Your task to perform on an android device: Open calendar and show me the first week of next month Image 0: 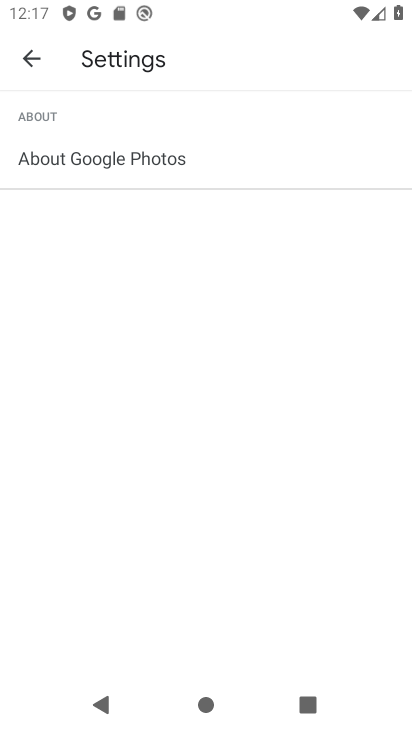
Step 0: click (27, 61)
Your task to perform on an android device: Open calendar and show me the first week of next month Image 1: 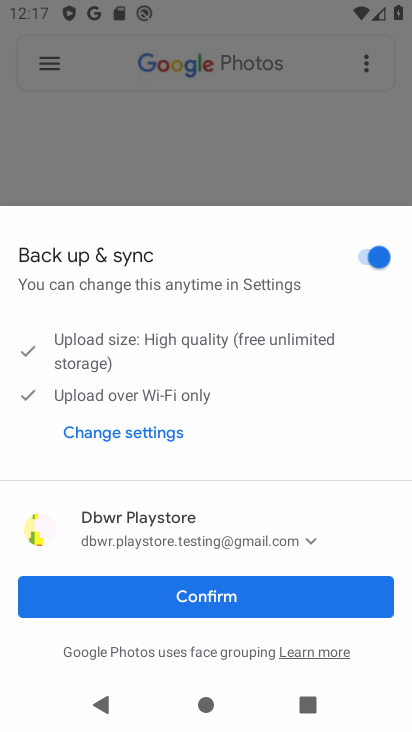
Step 1: press back button
Your task to perform on an android device: Open calendar and show me the first week of next month Image 2: 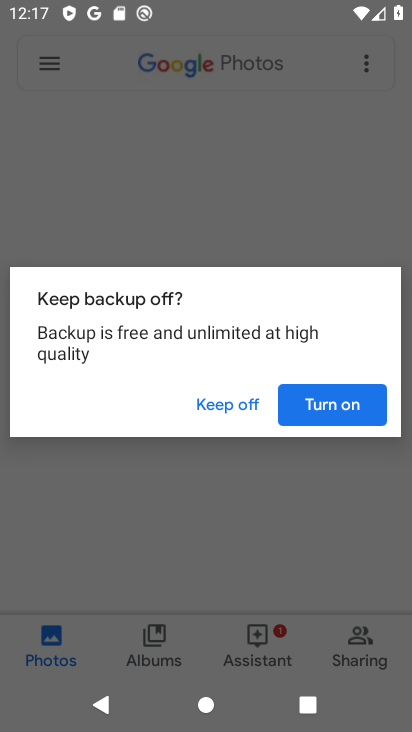
Step 2: click (281, 196)
Your task to perform on an android device: Open calendar and show me the first week of next month Image 3: 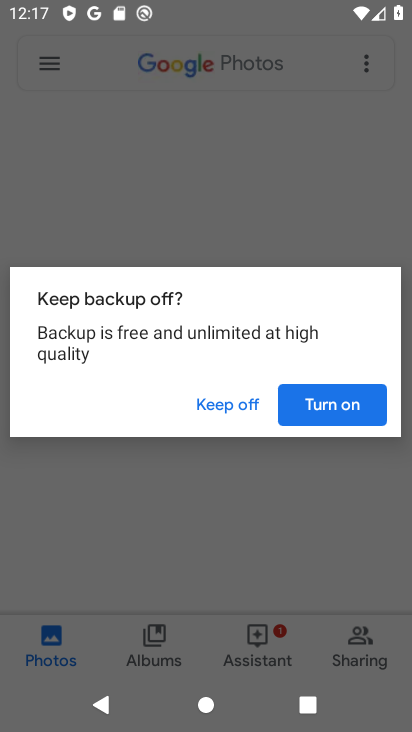
Step 3: click (276, 199)
Your task to perform on an android device: Open calendar and show me the first week of next month Image 4: 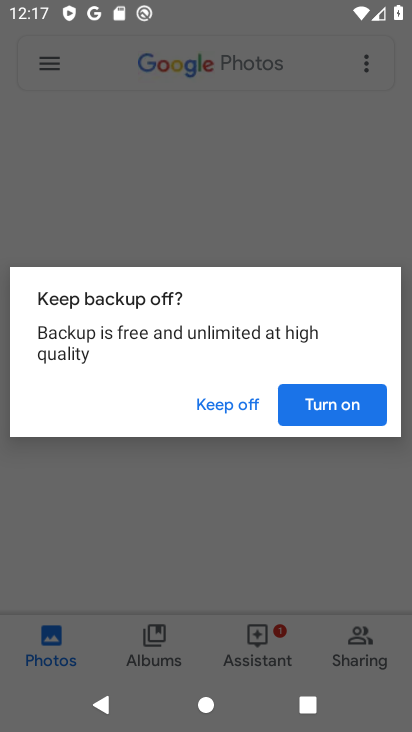
Step 4: click (275, 209)
Your task to perform on an android device: Open calendar and show me the first week of next month Image 5: 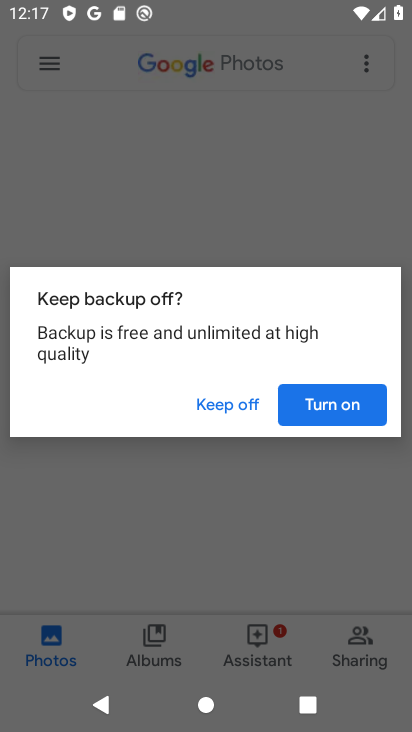
Step 5: click (282, 206)
Your task to perform on an android device: Open calendar and show me the first week of next month Image 6: 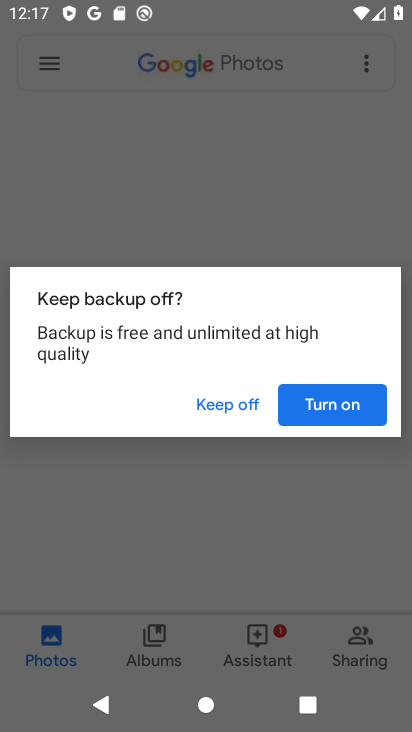
Step 6: drag from (286, 210) to (295, 243)
Your task to perform on an android device: Open calendar and show me the first week of next month Image 7: 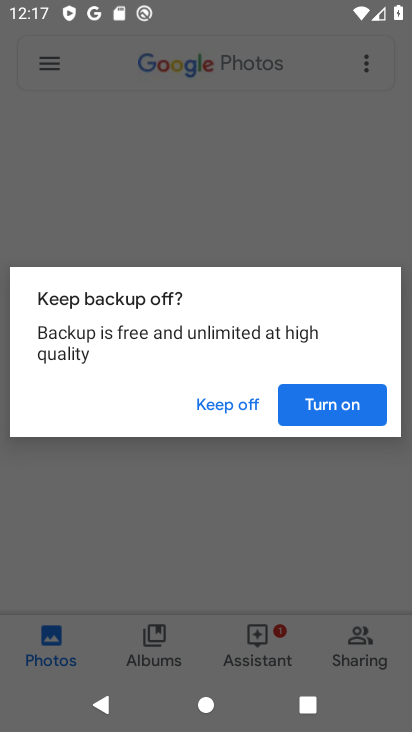
Step 7: click (301, 167)
Your task to perform on an android device: Open calendar and show me the first week of next month Image 8: 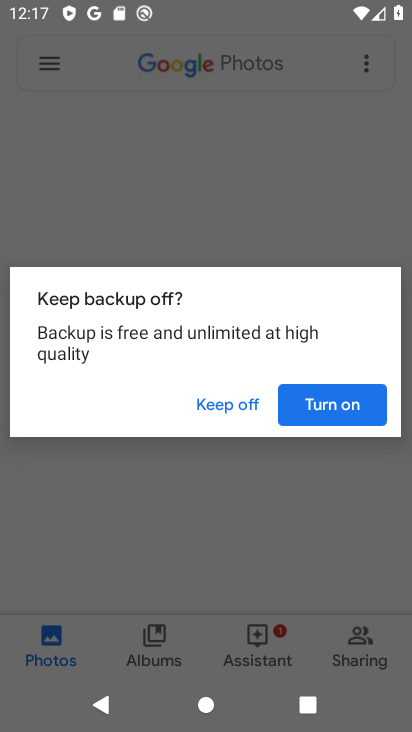
Step 8: click (299, 161)
Your task to perform on an android device: Open calendar and show me the first week of next month Image 9: 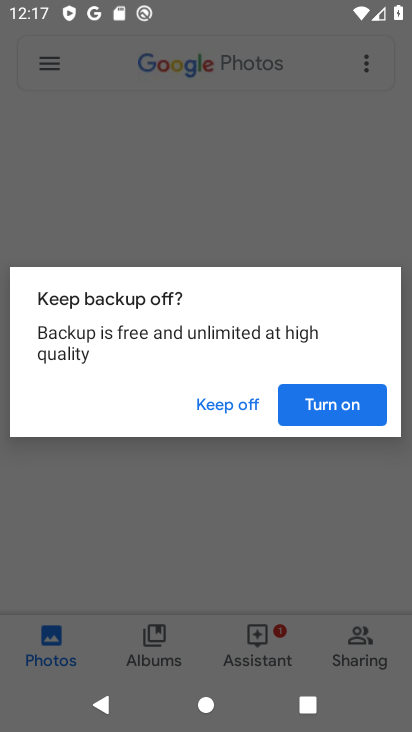
Step 9: press back button
Your task to perform on an android device: Open calendar and show me the first week of next month Image 10: 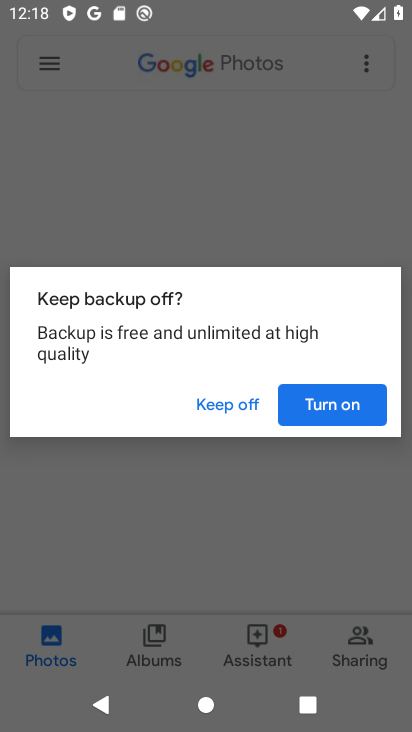
Step 10: click (255, 523)
Your task to perform on an android device: Open calendar and show me the first week of next month Image 11: 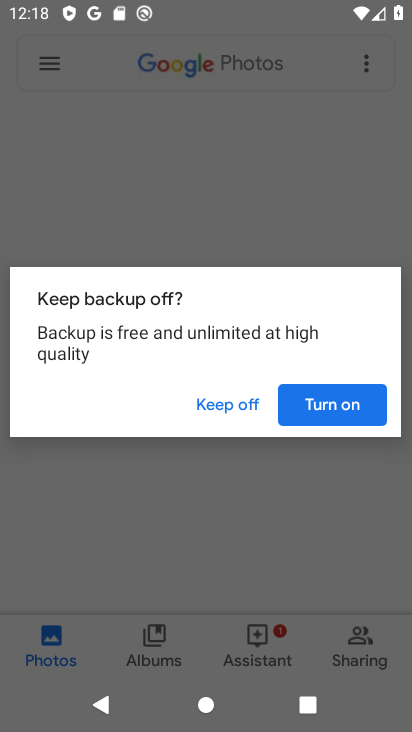
Step 11: click (230, 453)
Your task to perform on an android device: Open calendar and show me the first week of next month Image 12: 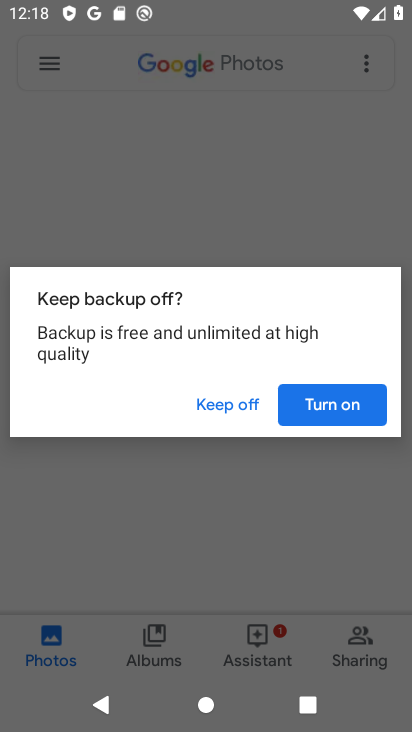
Step 12: press back button
Your task to perform on an android device: Open calendar and show me the first week of next month Image 13: 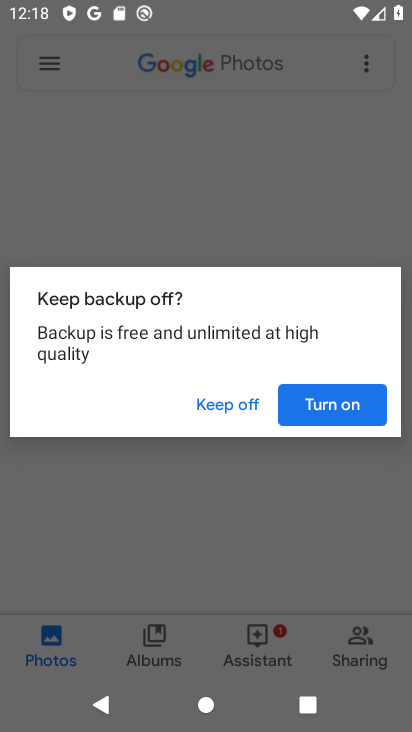
Step 13: press back button
Your task to perform on an android device: Open calendar and show me the first week of next month Image 14: 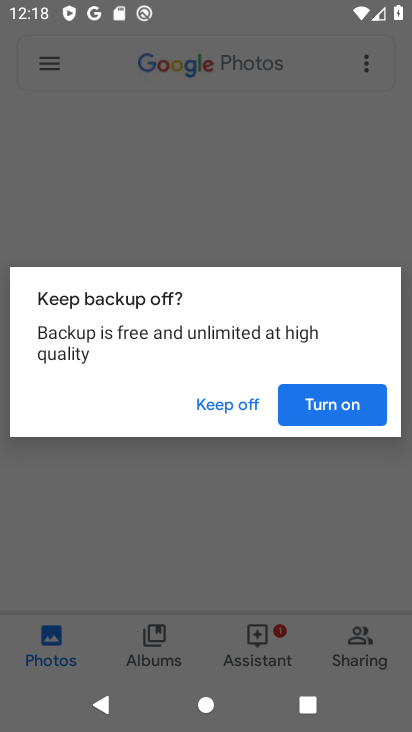
Step 14: click (230, 162)
Your task to perform on an android device: Open calendar and show me the first week of next month Image 15: 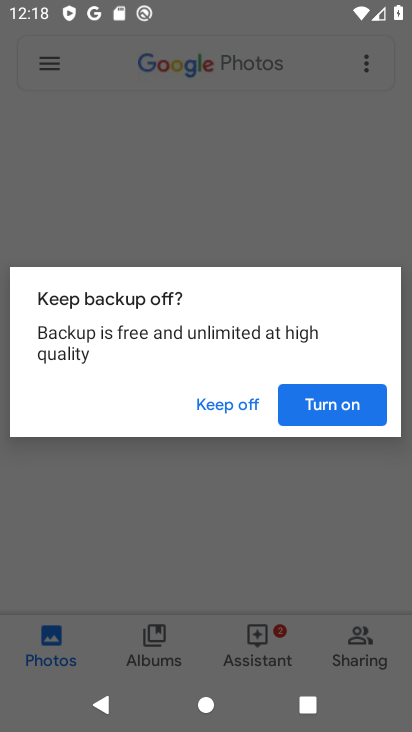
Step 15: click (229, 156)
Your task to perform on an android device: Open calendar and show me the first week of next month Image 16: 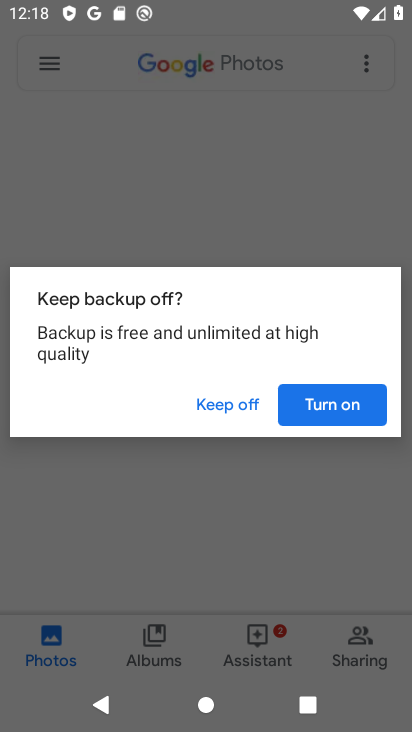
Step 16: click (227, 452)
Your task to perform on an android device: Open calendar and show me the first week of next month Image 17: 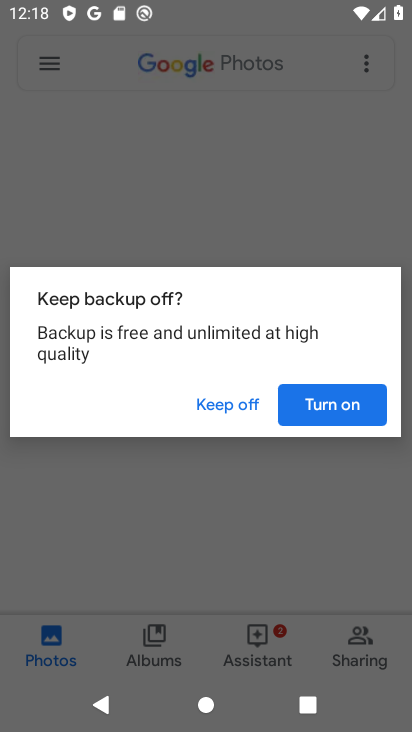
Step 17: drag from (232, 539) to (146, 261)
Your task to perform on an android device: Open calendar and show me the first week of next month Image 18: 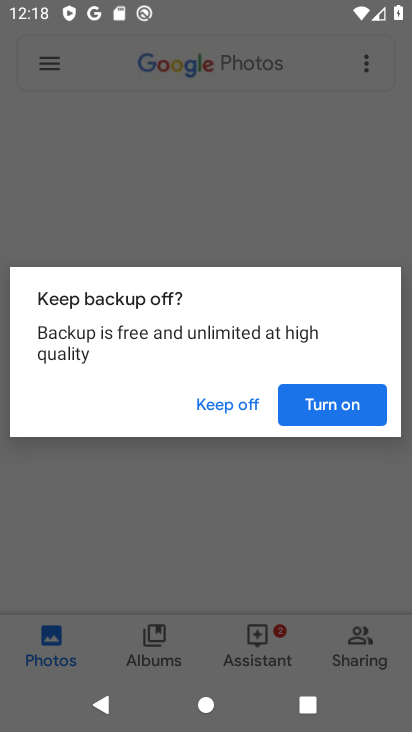
Step 18: click (222, 400)
Your task to perform on an android device: Open calendar and show me the first week of next month Image 19: 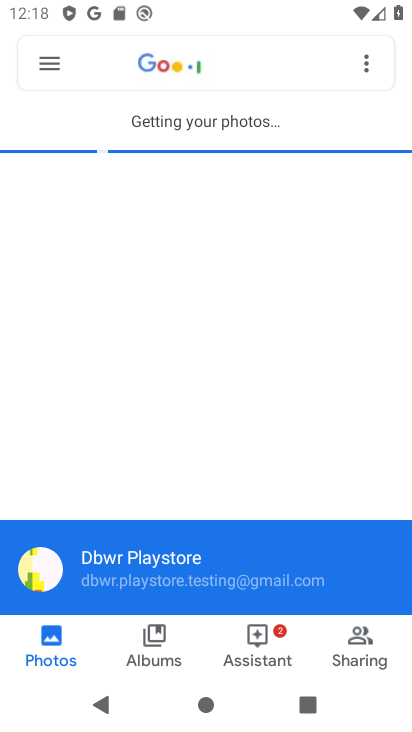
Step 19: press home button
Your task to perform on an android device: Open calendar and show me the first week of next month Image 20: 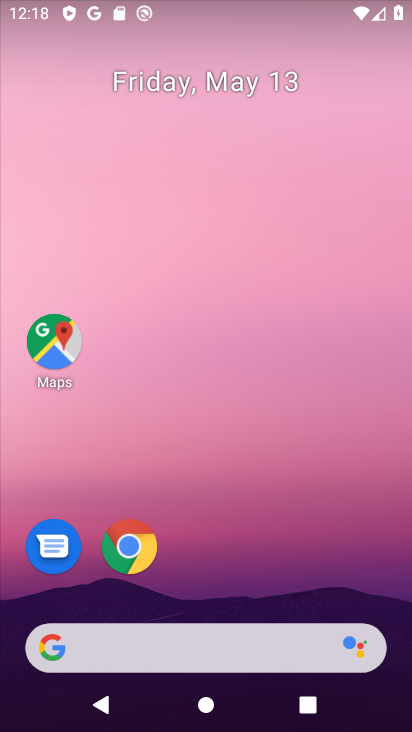
Step 20: drag from (305, 533) to (226, 132)
Your task to perform on an android device: Open calendar and show me the first week of next month Image 21: 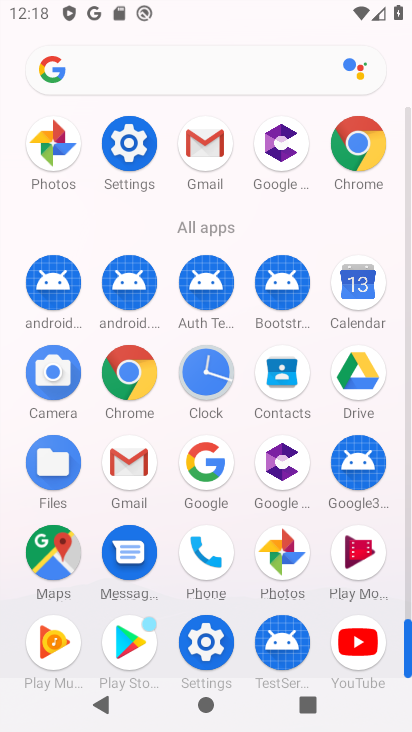
Step 21: click (348, 281)
Your task to perform on an android device: Open calendar and show me the first week of next month Image 22: 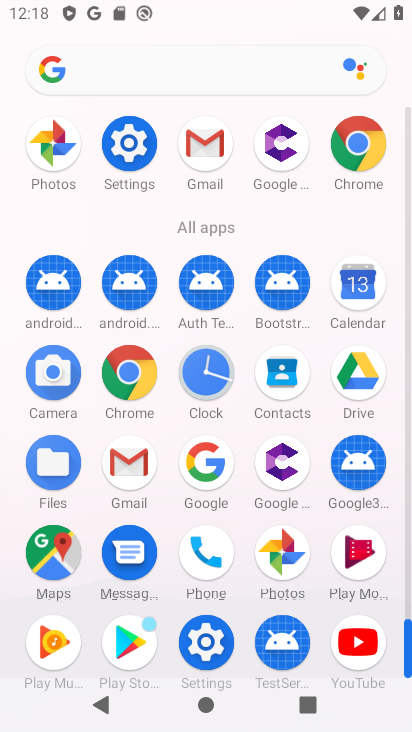
Step 22: click (351, 281)
Your task to perform on an android device: Open calendar and show me the first week of next month Image 23: 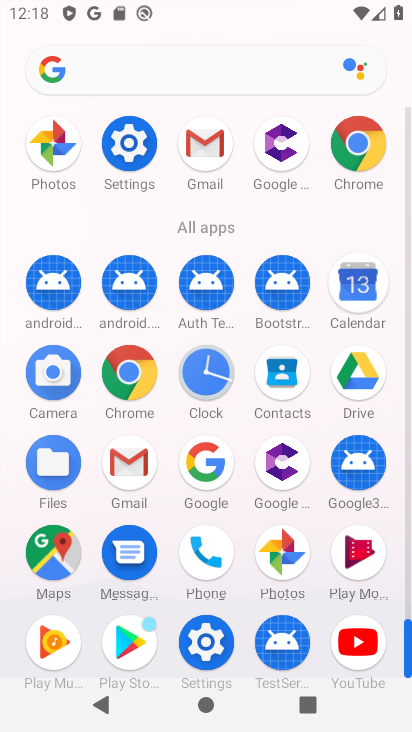
Step 23: click (351, 278)
Your task to perform on an android device: Open calendar and show me the first week of next month Image 24: 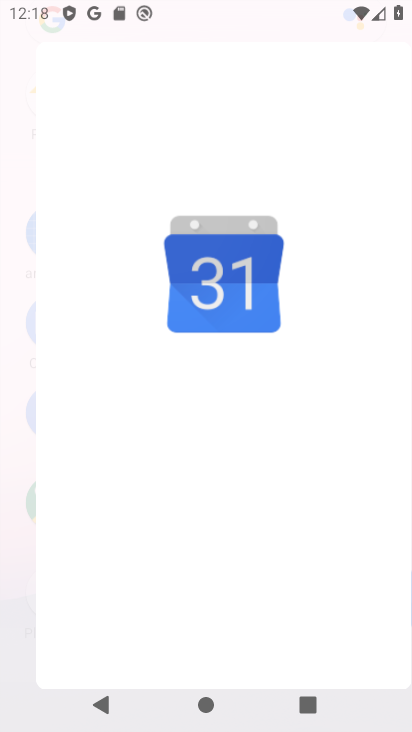
Step 24: click (353, 277)
Your task to perform on an android device: Open calendar and show me the first week of next month Image 25: 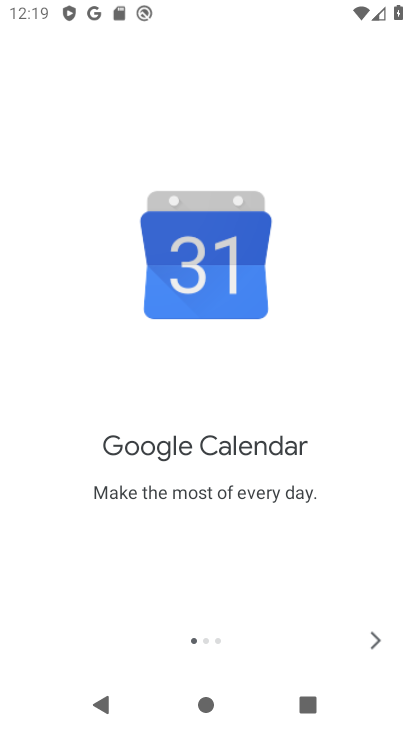
Step 25: click (372, 645)
Your task to perform on an android device: Open calendar and show me the first week of next month Image 26: 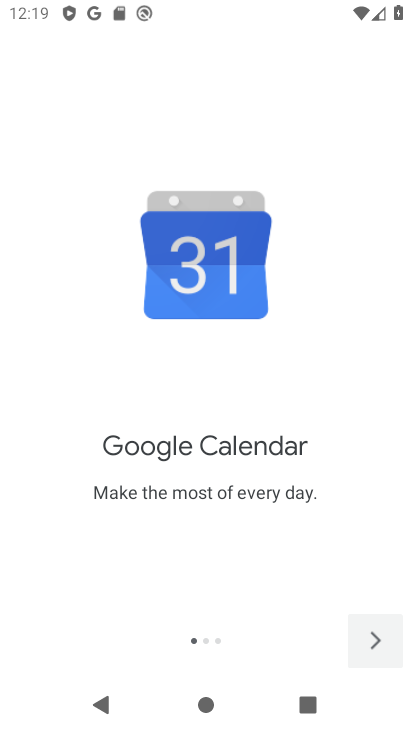
Step 26: click (372, 645)
Your task to perform on an android device: Open calendar and show me the first week of next month Image 27: 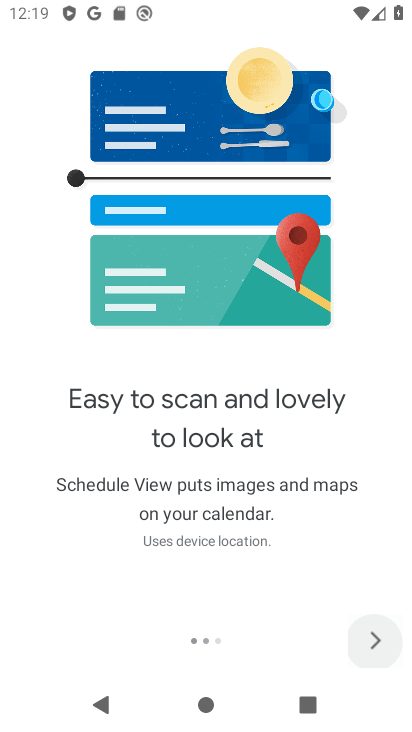
Step 27: click (373, 649)
Your task to perform on an android device: Open calendar and show me the first week of next month Image 28: 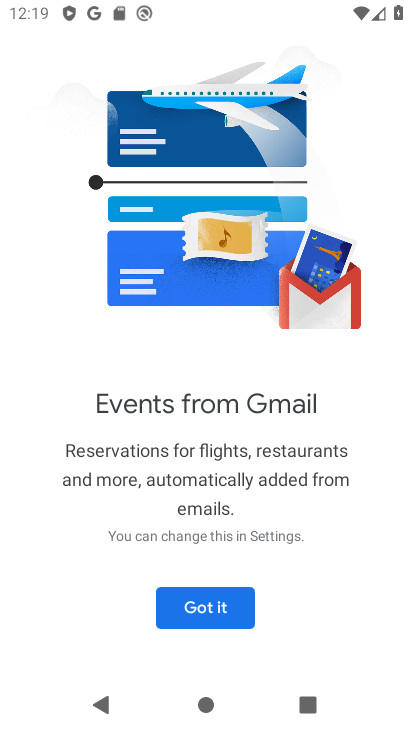
Step 28: click (202, 616)
Your task to perform on an android device: Open calendar and show me the first week of next month Image 29: 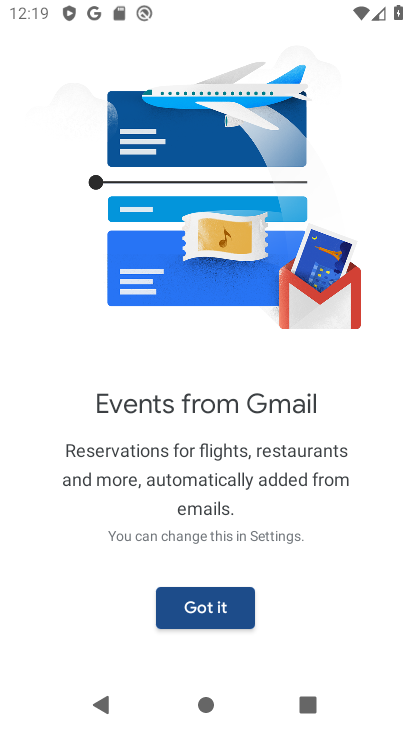
Step 29: click (202, 616)
Your task to perform on an android device: Open calendar and show me the first week of next month Image 30: 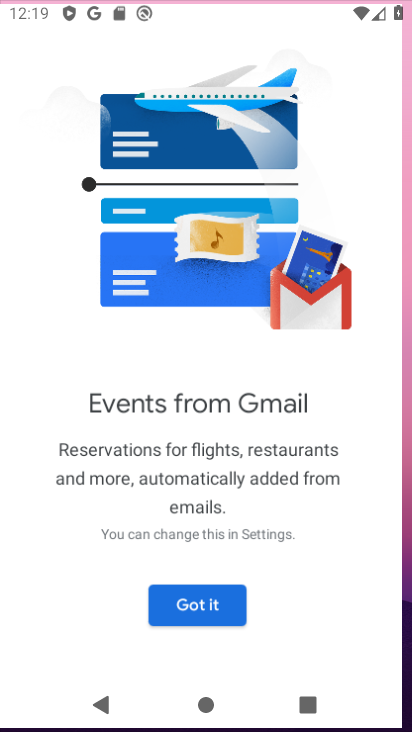
Step 30: click (202, 616)
Your task to perform on an android device: Open calendar and show me the first week of next month Image 31: 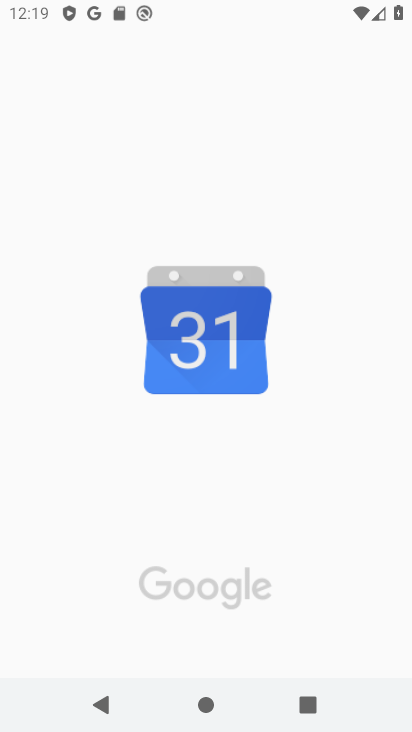
Step 31: click (187, 600)
Your task to perform on an android device: Open calendar and show me the first week of next month Image 32: 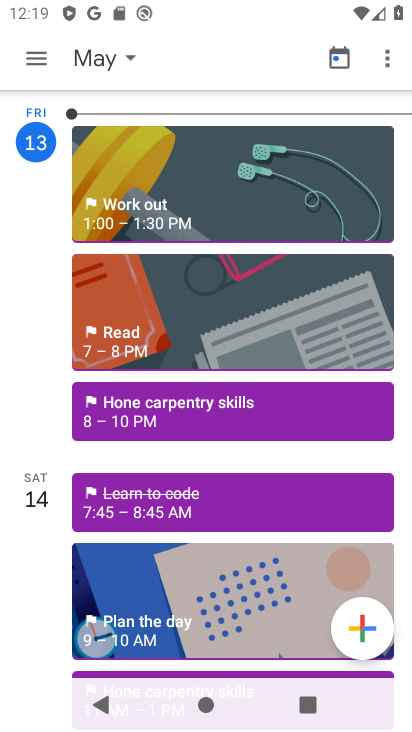
Step 32: click (129, 52)
Your task to perform on an android device: Open calendar and show me the first week of next month Image 33: 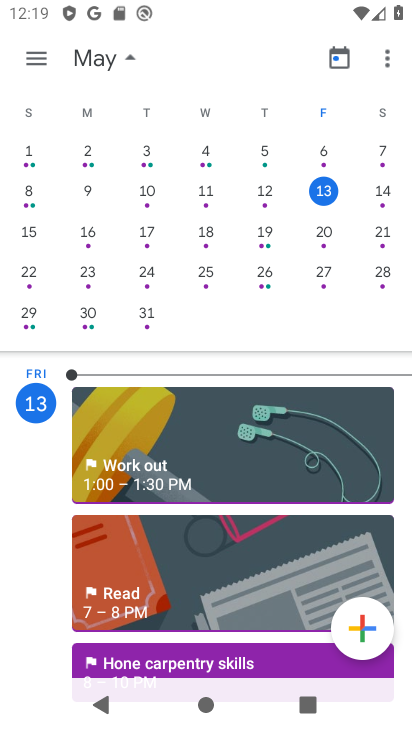
Step 33: drag from (321, 226) to (11, 290)
Your task to perform on an android device: Open calendar and show me the first week of next month Image 34: 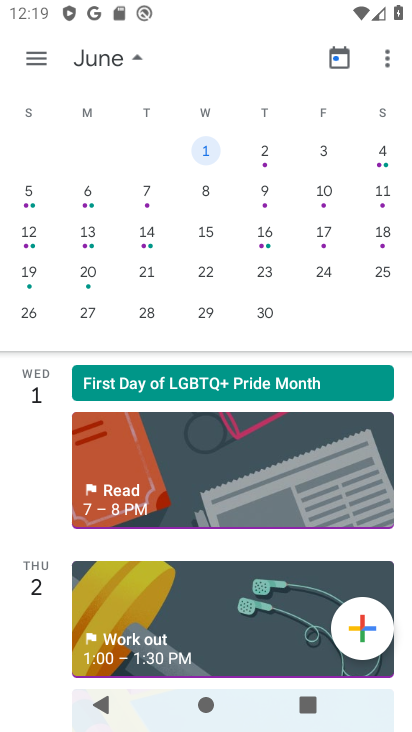
Step 34: drag from (269, 226) to (23, 223)
Your task to perform on an android device: Open calendar and show me the first week of next month Image 35: 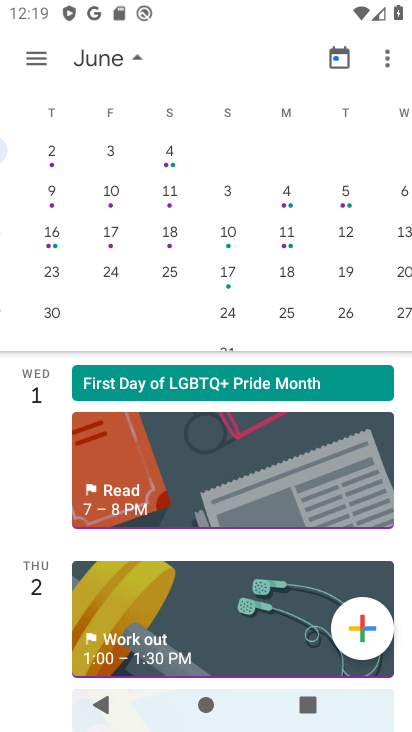
Step 35: drag from (172, 202) to (79, 219)
Your task to perform on an android device: Open calendar and show me the first week of next month Image 36: 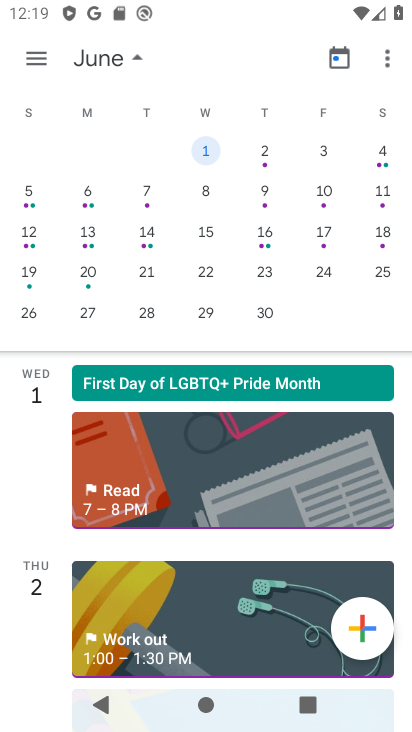
Step 36: drag from (269, 164) to (0, 220)
Your task to perform on an android device: Open calendar and show me the first week of next month Image 37: 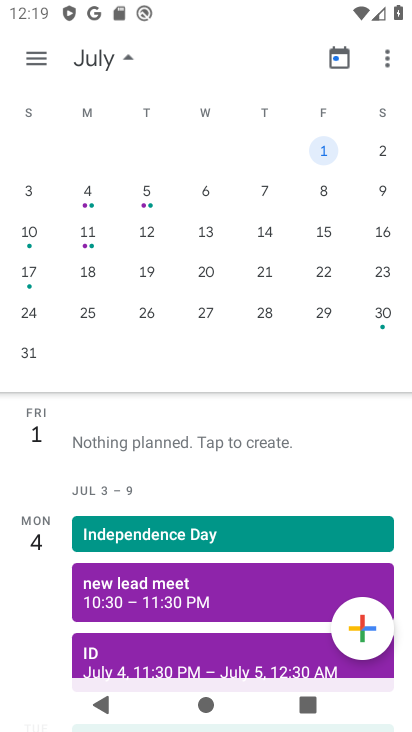
Step 37: click (214, 214)
Your task to perform on an android device: Open calendar and show me the first week of next month Image 38: 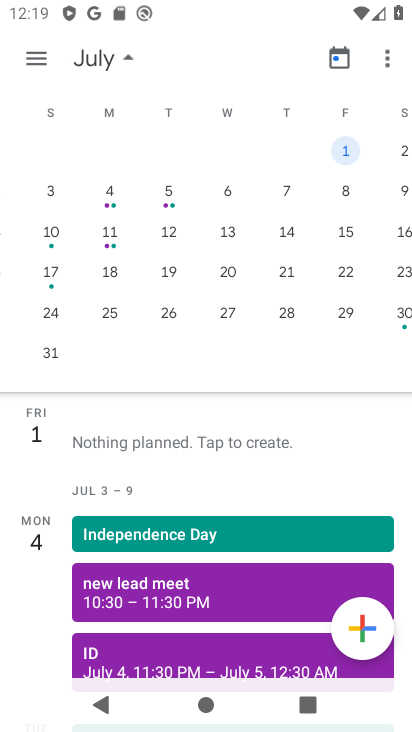
Step 38: drag from (322, 200) to (56, 236)
Your task to perform on an android device: Open calendar and show me the first week of next month Image 39: 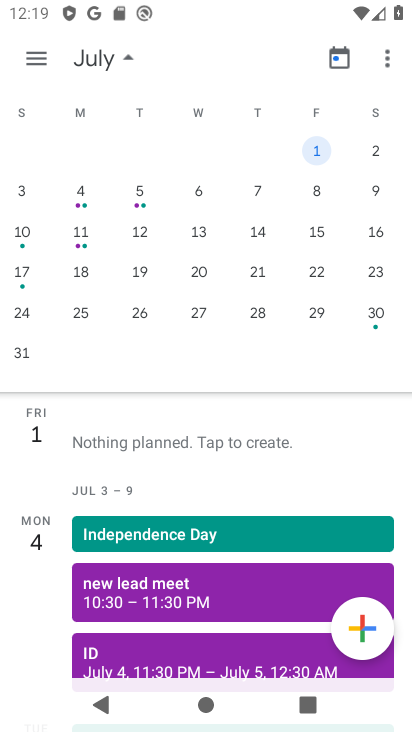
Step 39: drag from (174, 229) to (48, 302)
Your task to perform on an android device: Open calendar and show me the first week of next month Image 40: 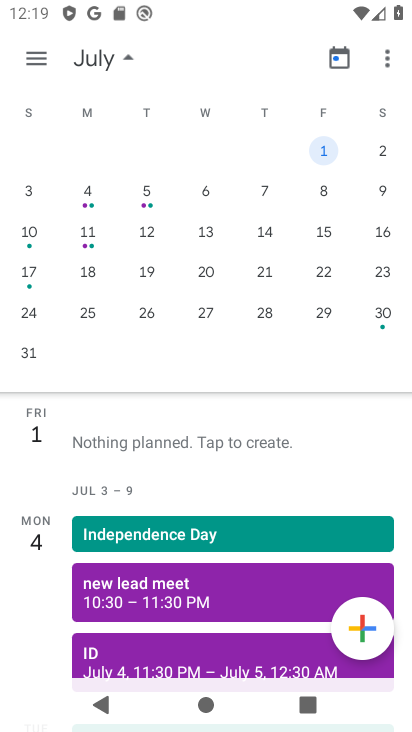
Step 40: click (177, 264)
Your task to perform on an android device: Open calendar and show me the first week of next month Image 41: 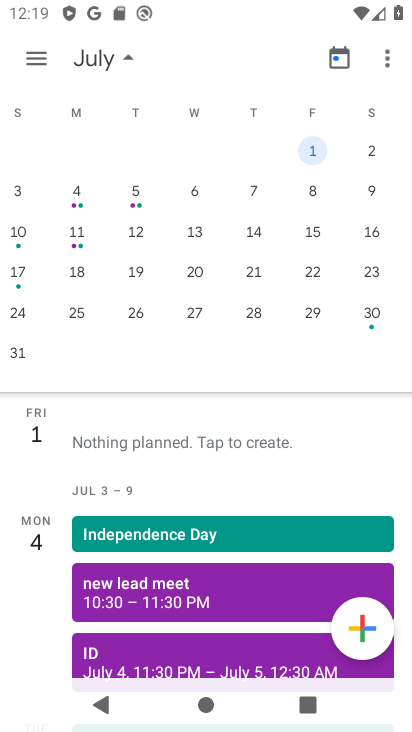
Step 41: drag from (114, 192) to (61, 232)
Your task to perform on an android device: Open calendar and show me the first week of next month Image 42: 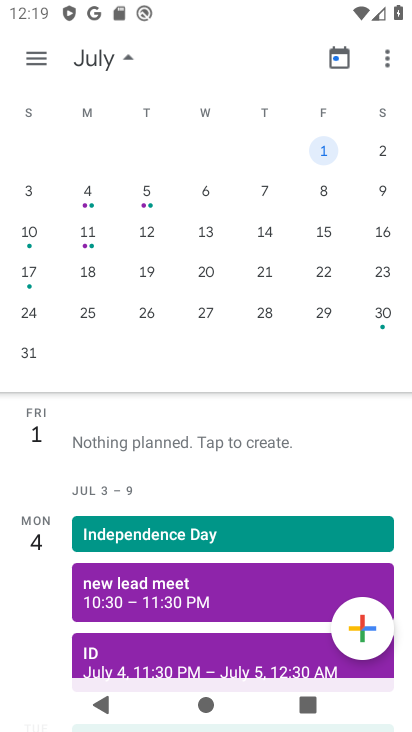
Step 42: drag from (345, 240) to (83, 229)
Your task to perform on an android device: Open calendar and show me the first week of next month Image 43: 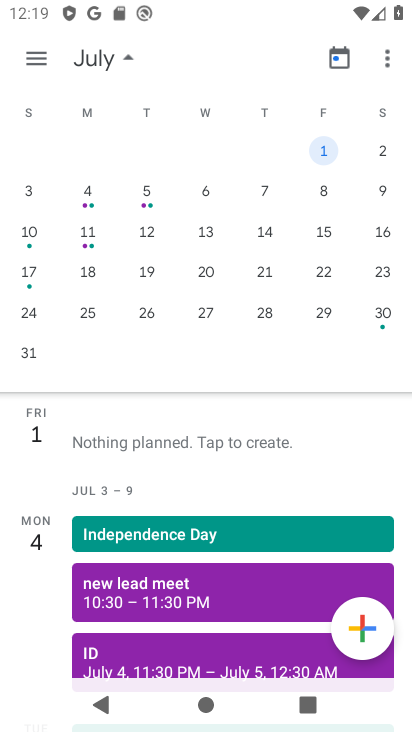
Step 43: drag from (334, 175) to (57, 232)
Your task to perform on an android device: Open calendar and show me the first week of next month Image 44: 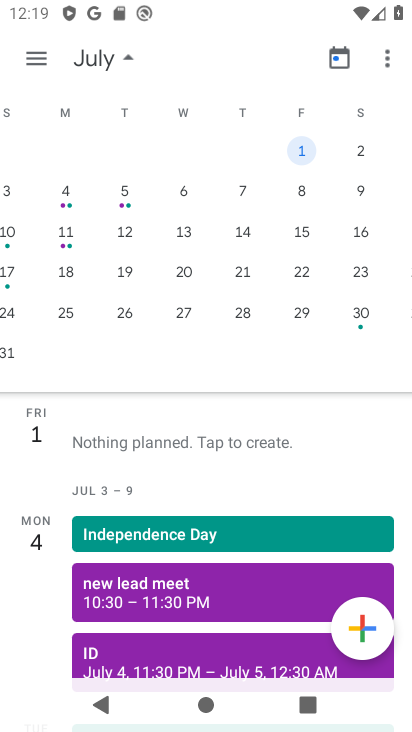
Step 44: drag from (234, 226) to (62, 197)
Your task to perform on an android device: Open calendar and show me the first week of next month Image 45: 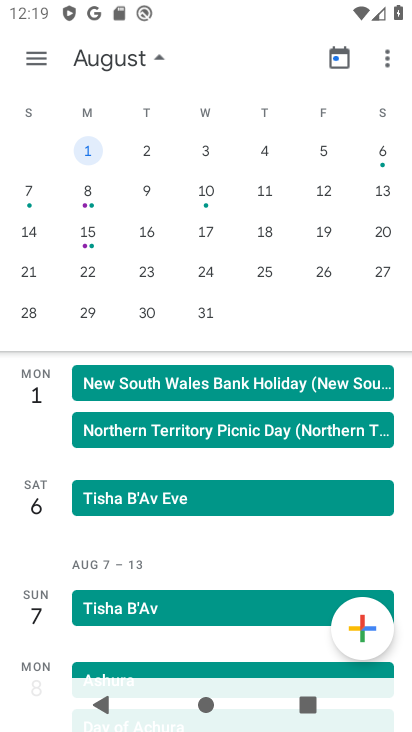
Step 45: click (89, 239)
Your task to perform on an android device: Open calendar and show me the first week of next month Image 46: 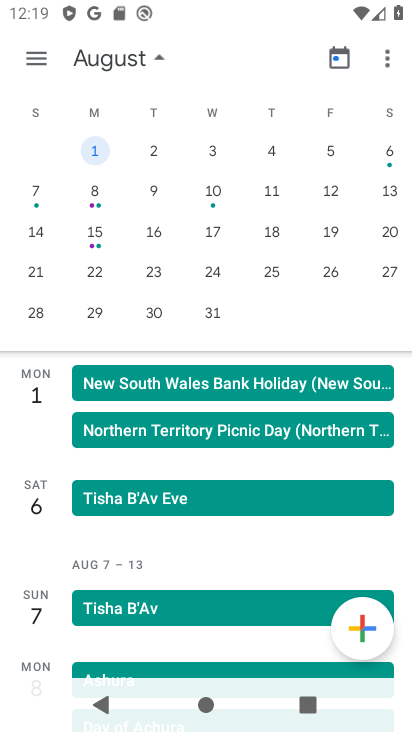
Step 46: drag from (175, 233) to (373, 229)
Your task to perform on an android device: Open calendar and show me the first week of next month Image 47: 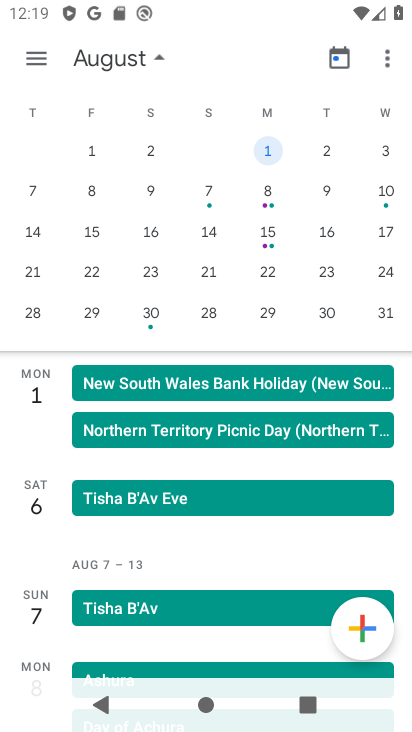
Step 47: drag from (131, 212) to (298, 245)
Your task to perform on an android device: Open calendar and show me the first week of next month Image 48: 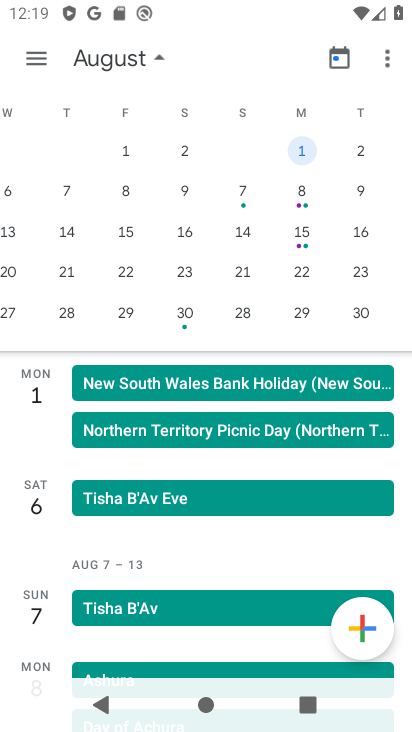
Step 48: drag from (18, 250) to (404, 184)
Your task to perform on an android device: Open calendar and show me the first week of next month Image 49: 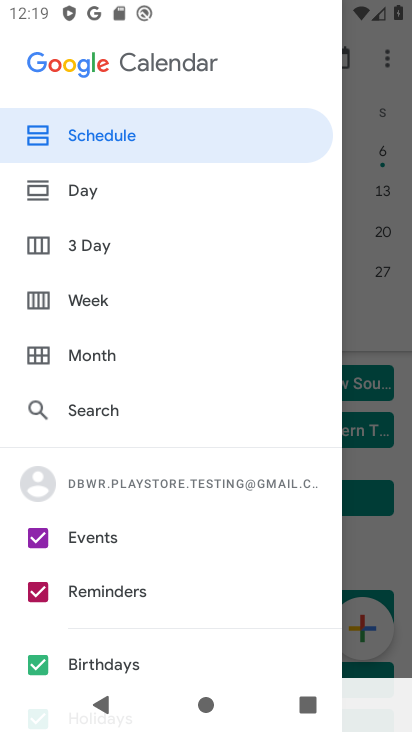
Step 49: click (345, 299)
Your task to perform on an android device: Open calendar and show me the first week of next month Image 50: 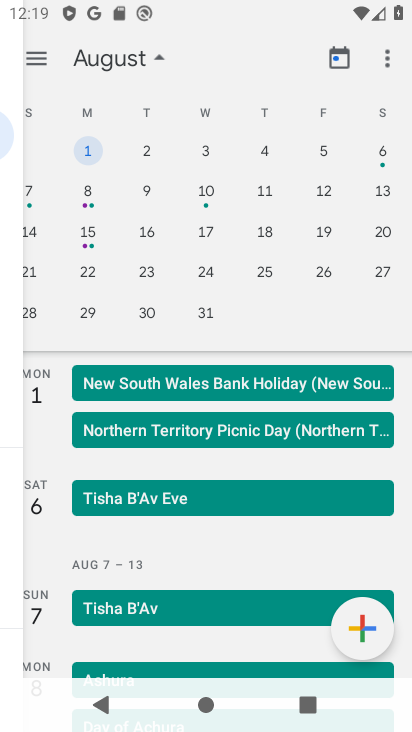
Step 50: click (345, 304)
Your task to perform on an android device: Open calendar and show me the first week of next month Image 51: 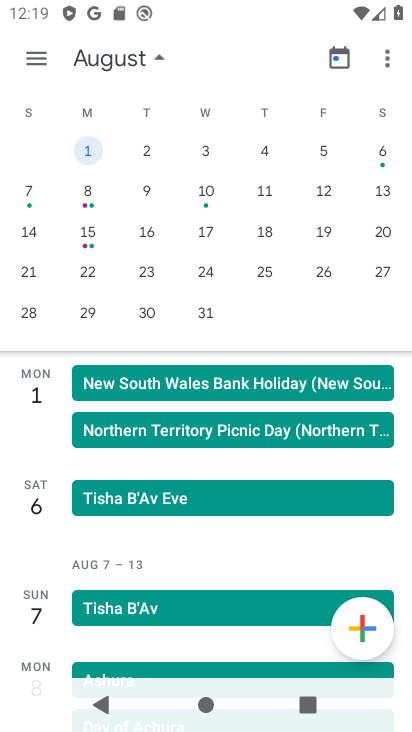
Step 51: click (345, 304)
Your task to perform on an android device: Open calendar and show me the first week of next month Image 52: 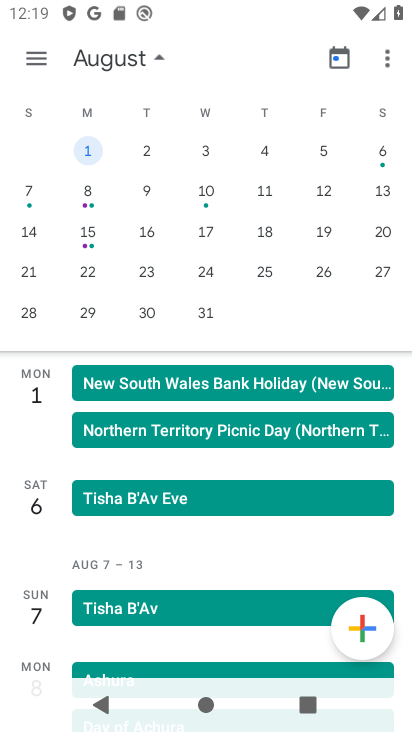
Step 52: click (346, 304)
Your task to perform on an android device: Open calendar and show me the first week of next month Image 53: 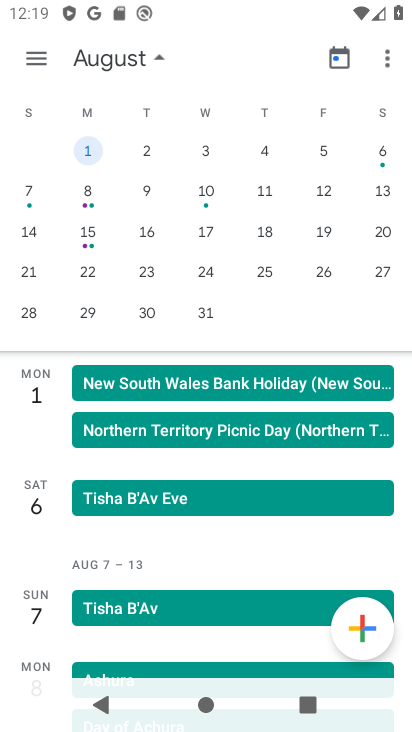
Step 53: drag from (148, 226) to (389, 241)
Your task to perform on an android device: Open calendar and show me the first week of next month Image 54: 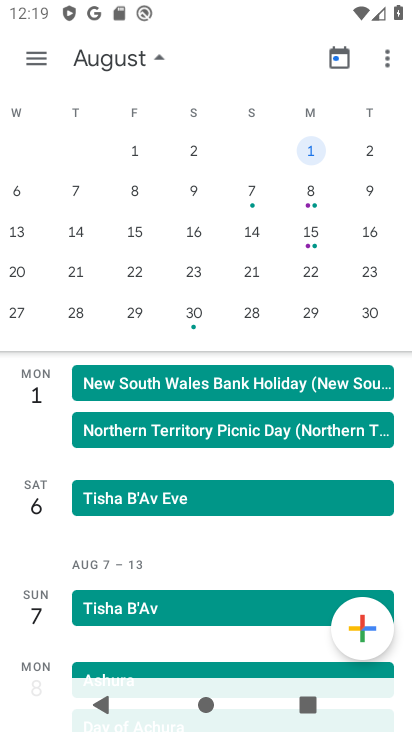
Step 54: drag from (169, 238) to (405, 222)
Your task to perform on an android device: Open calendar and show me the first week of next month Image 55: 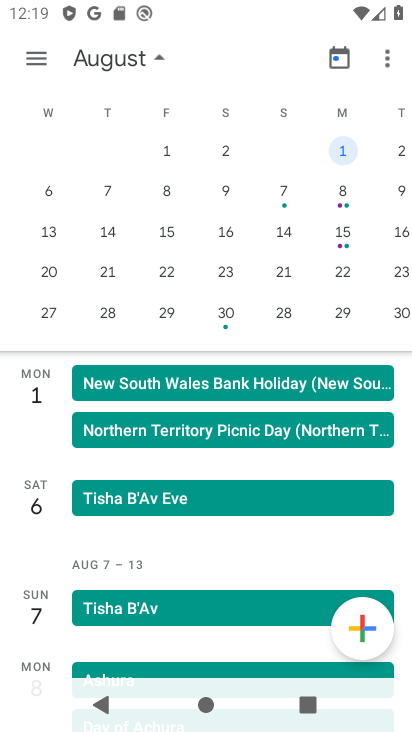
Step 55: drag from (389, 136) to (302, 167)
Your task to perform on an android device: Open calendar and show me the first week of next month Image 56: 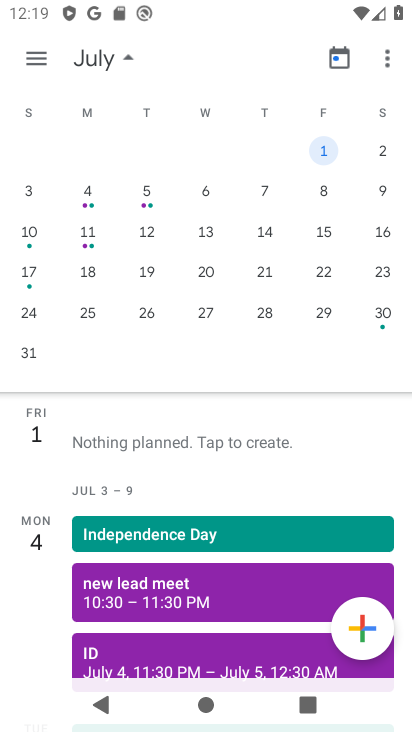
Step 56: drag from (120, 216) to (401, 259)
Your task to perform on an android device: Open calendar and show me the first week of next month Image 57: 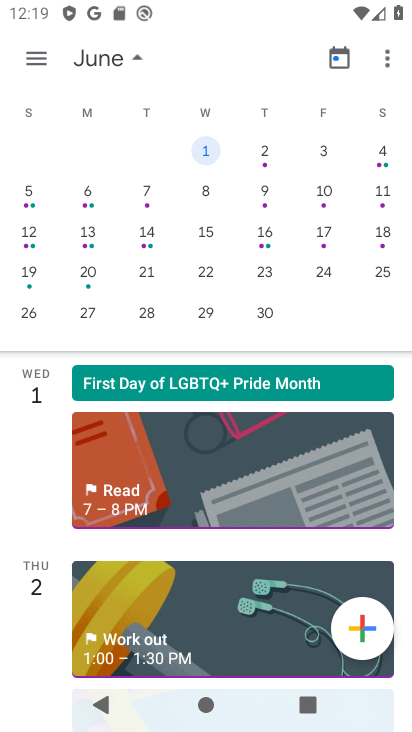
Step 57: click (218, 233)
Your task to perform on an android device: Open calendar and show me the first week of next month Image 58: 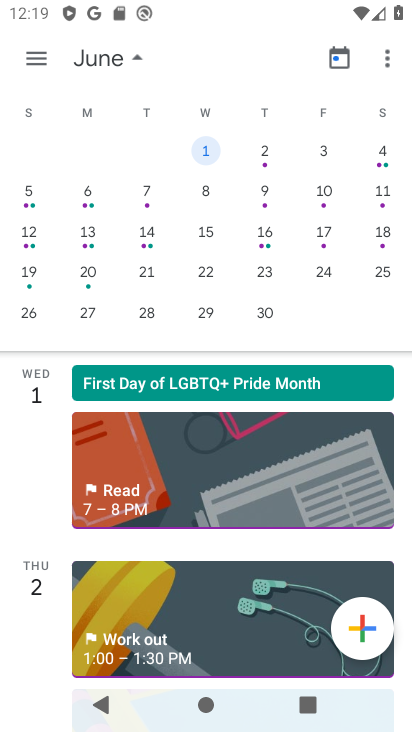
Step 58: click (212, 232)
Your task to perform on an android device: Open calendar and show me the first week of next month Image 59: 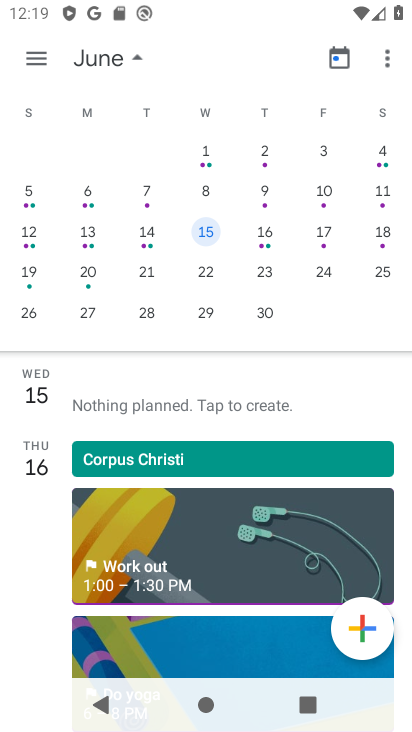
Step 59: click (209, 152)
Your task to perform on an android device: Open calendar and show me the first week of next month Image 60: 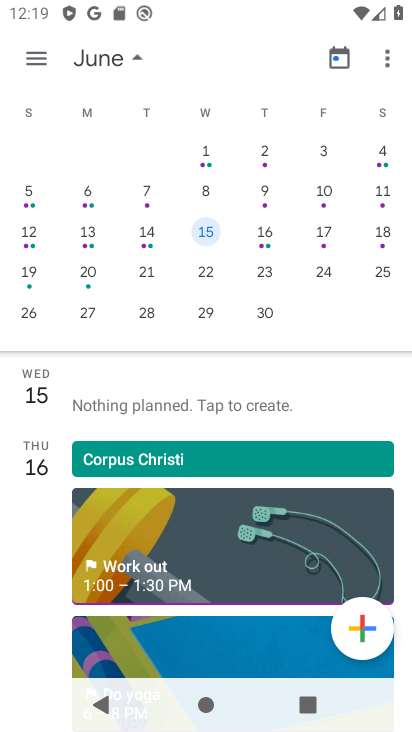
Step 60: click (202, 150)
Your task to perform on an android device: Open calendar and show me the first week of next month Image 61: 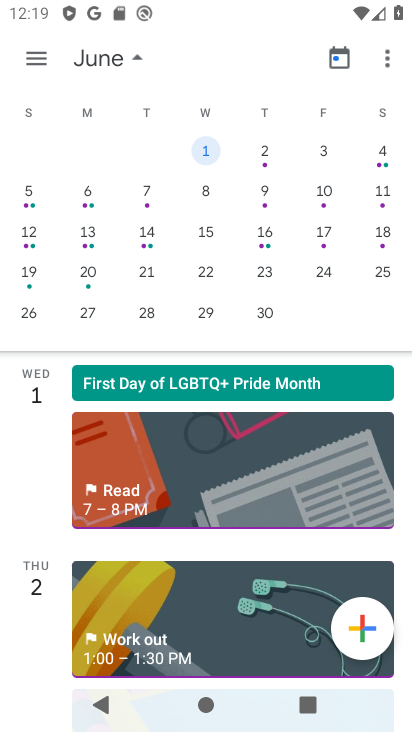
Step 61: task complete